Your task to perform on an android device: Go to wifi settings Image 0: 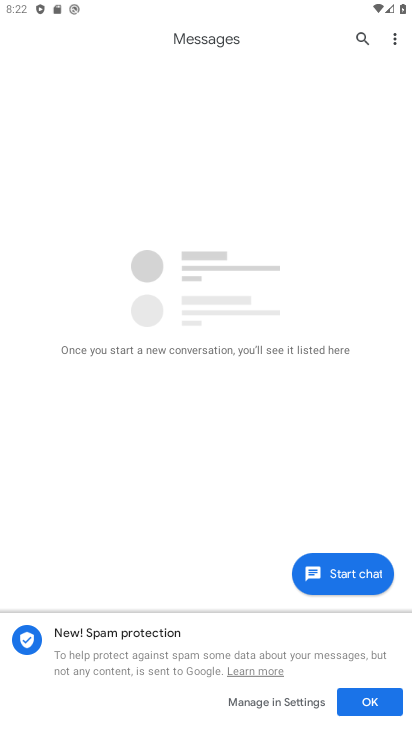
Step 0: task complete